Your task to perform on an android device: Go to sound settings Image 0: 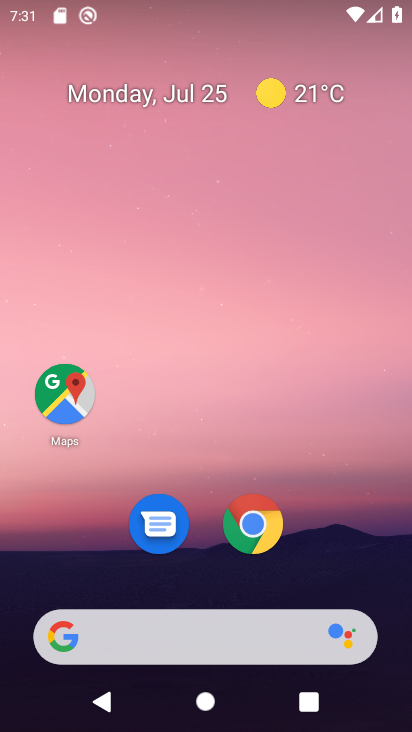
Step 0: drag from (201, 630) to (273, 17)
Your task to perform on an android device: Go to sound settings Image 1: 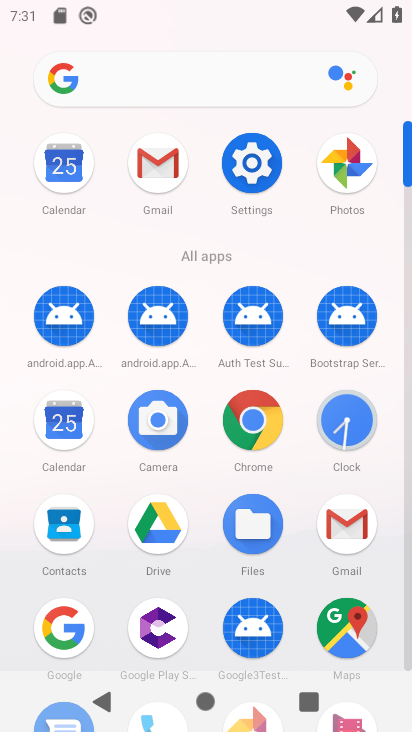
Step 1: click (269, 172)
Your task to perform on an android device: Go to sound settings Image 2: 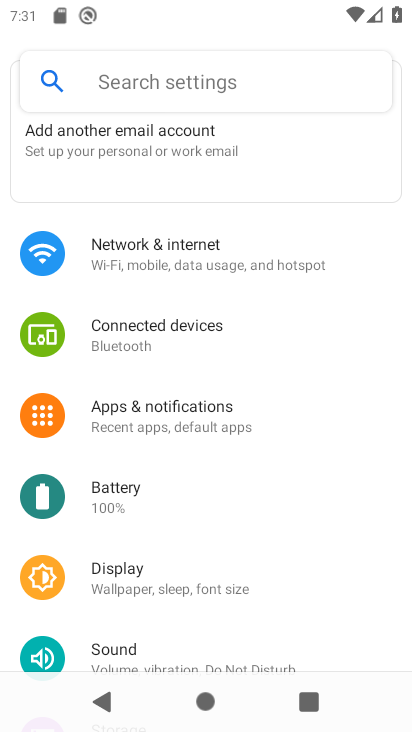
Step 2: drag from (195, 554) to (233, 123)
Your task to perform on an android device: Go to sound settings Image 3: 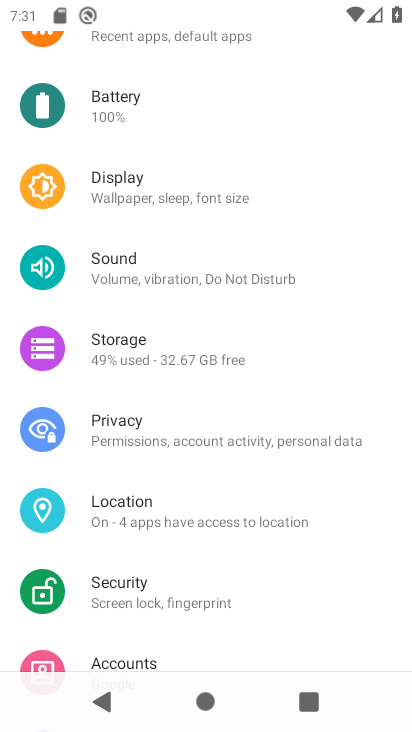
Step 3: click (153, 268)
Your task to perform on an android device: Go to sound settings Image 4: 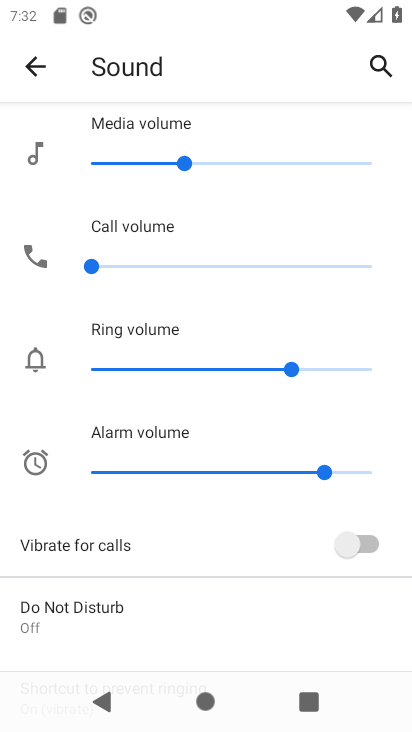
Step 4: task complete